Your task to perform on an android device: Go to internet settings Image 0: 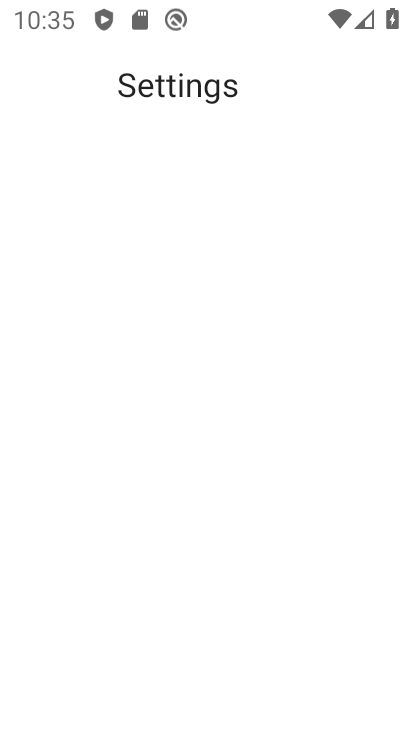
Step 0: drag from (219, 627) to (257, 479)
Your task to perform on an android device: Go to internet settings Image 1: 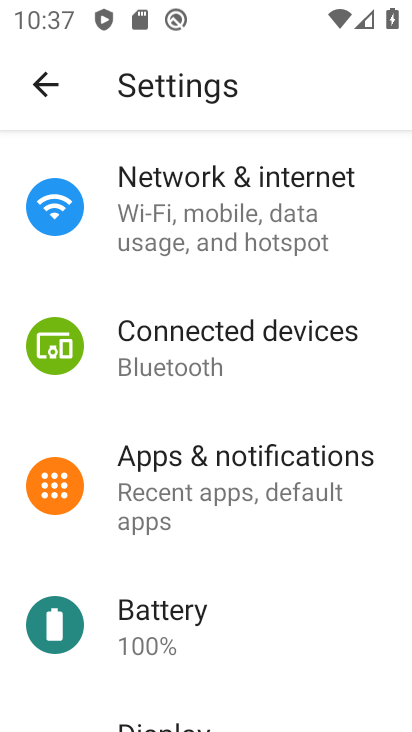
Step 1: click (194, 197)
Your task to perform on an android device: Go to internet settings Image 2: 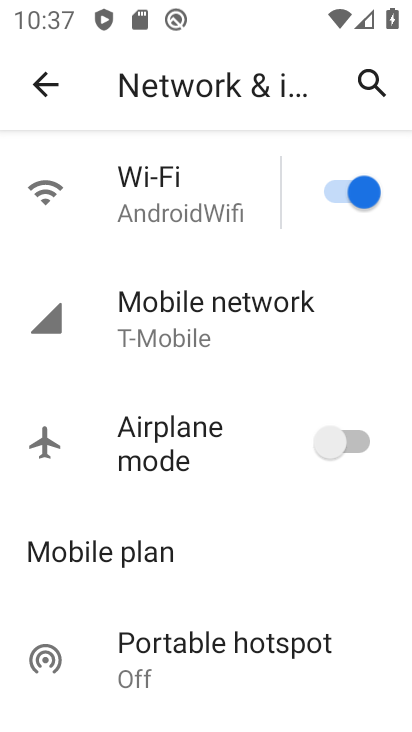
Step 2: click (165, 317)
Your task to perform on an android device: Go to internet settings Image 3: 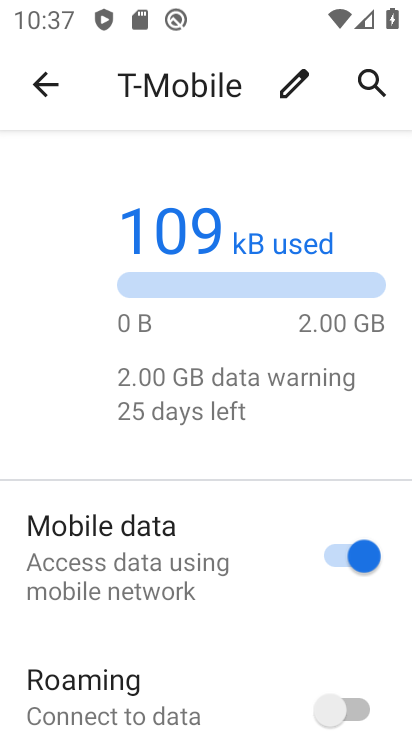
Step 3: task complete